Your task to perform on an android device: Turn on the flashlight Image 0: 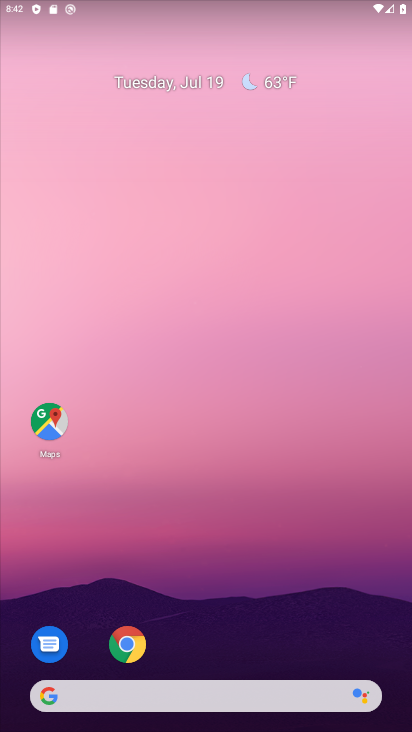
Step 0: drag from (291, 707) to (252, 205)
Your task to perform on an android device: Turn on the flashlight Image 1: 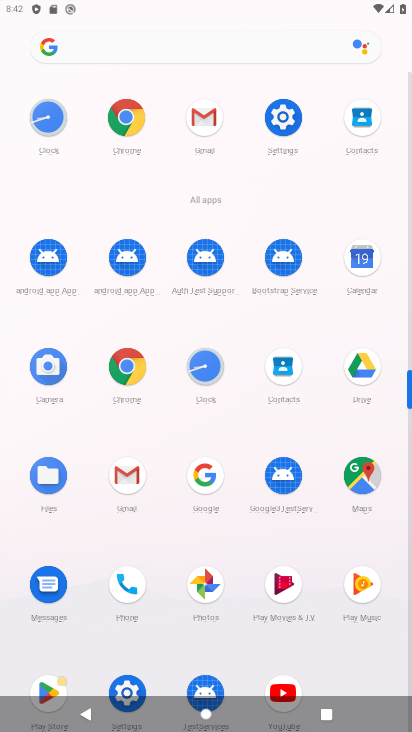
Step 1: task complete